Your task to perform on an android device: make emails show in primary in the gmail app Image 0: 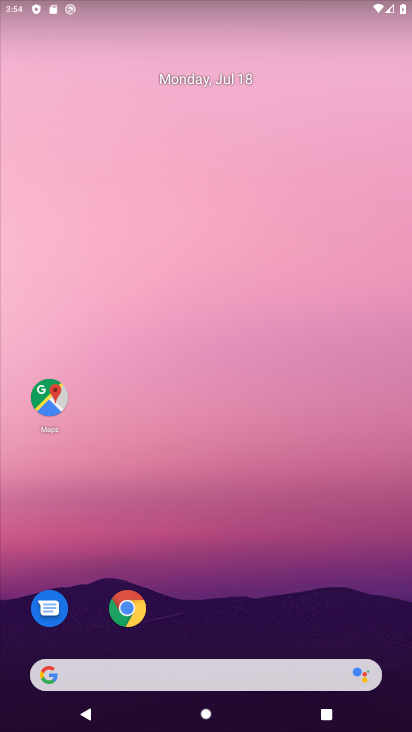
Step 0: drag from (304, 613) to (248, 198)
Your task to perform on an android device: make emails show in primary in the gmail app Image 1: 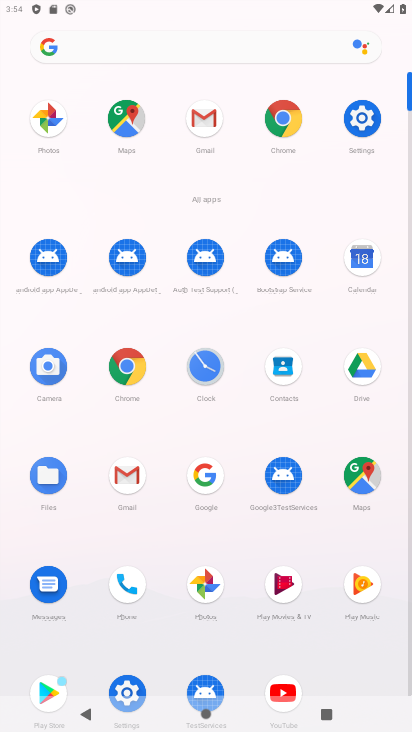
Step 1: click (212, 105)
Your task to perform on an android device: make emails show in primary in the gmail app Image 2: 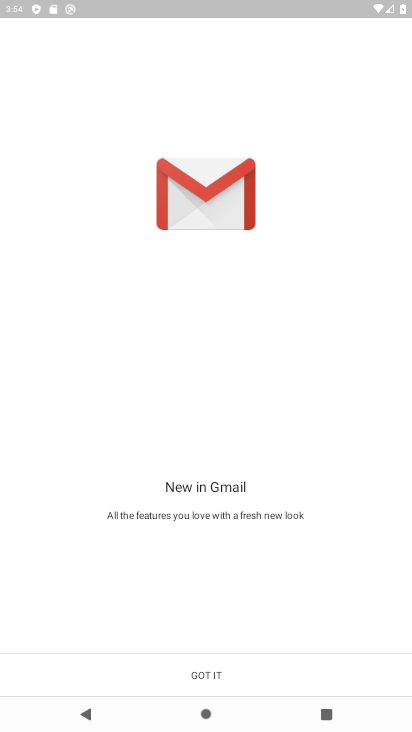
Step 2: click (193, 667)
Your task to perform on an android device: make emails show in primary in the gmail app Image 3: 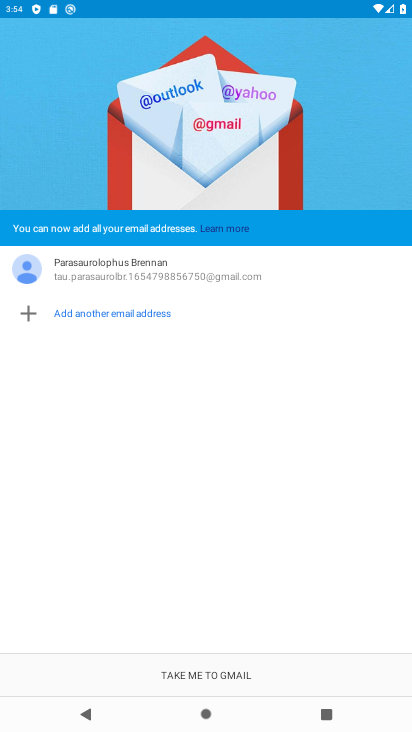
Step 3: click (193, 667)
Your task to perform on an android device: make emails show in primary in the gmail app Image 4: 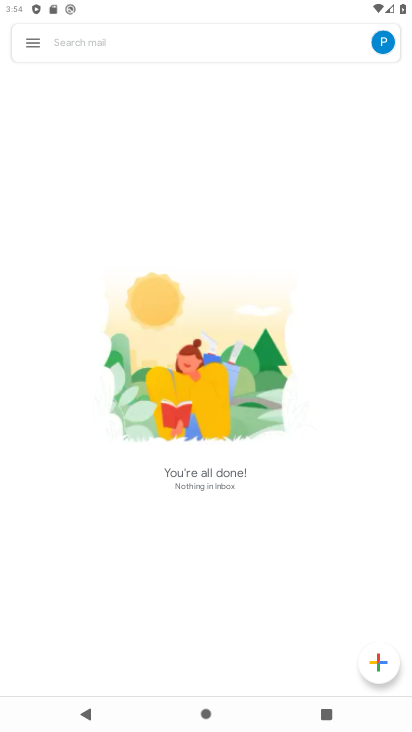
Step 4: click (34, 50)
Your task to perform on an android device: make emails show in primary in the gmail app Image 5: 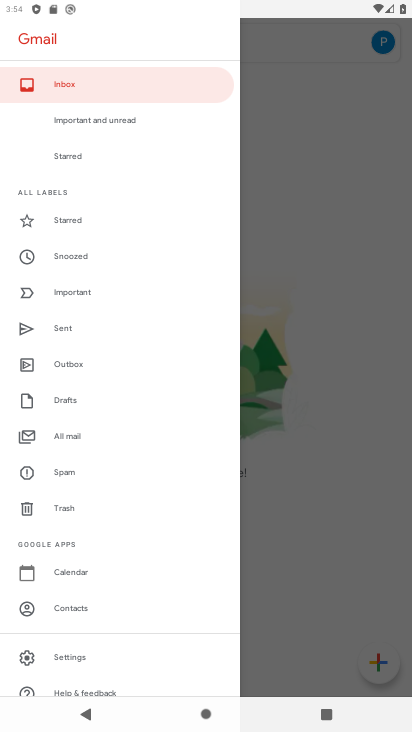
Step 5: click (89, 659)
Your task to perform on an android device: make emails show in primary in the gmail app Image 6: 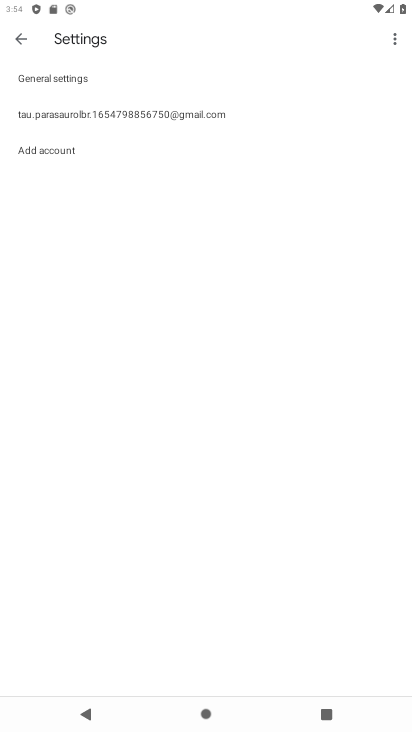
Step 6: click (170, 110)
Your task to perform on an android device: make emails show in primary in the gmail app Image 7: 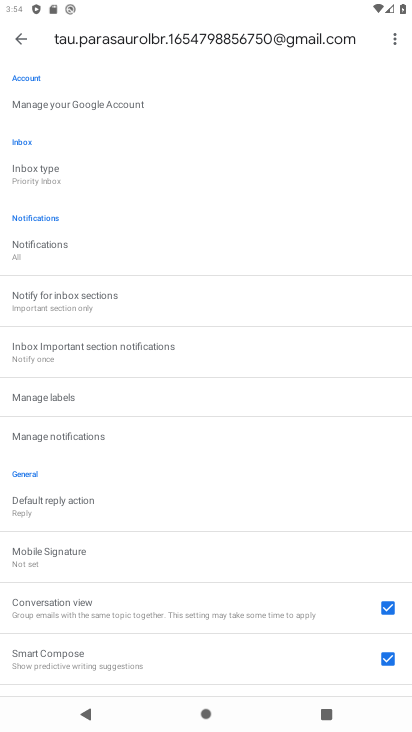
Step 7: click (168, 164)
Your task to perform on an android device: make emails show in primary in the gmail app Image 8: 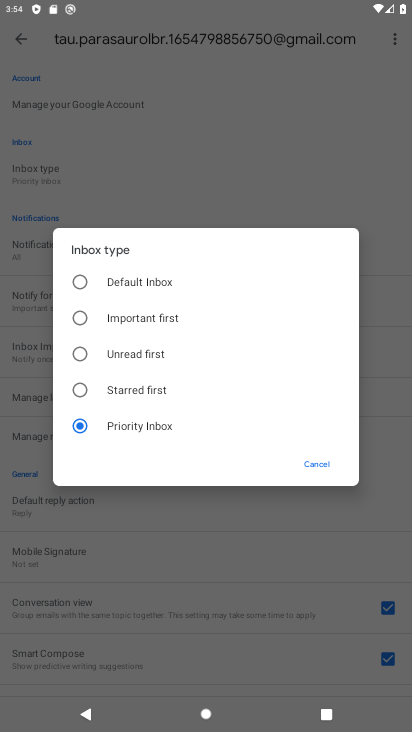
Step 8: click (139, 285)
Your task to perform on an android device: make emails show in primary in the gmail app Image 9: 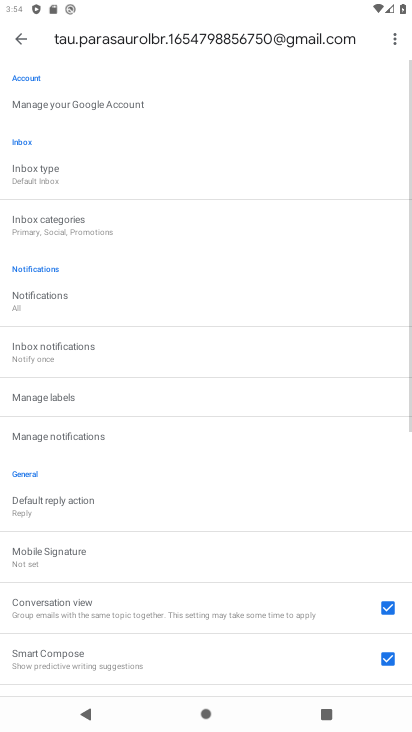
Step 9: task complete